Your task to perform on an android device: open the mobile data screen to see how much data has been used Image 0: 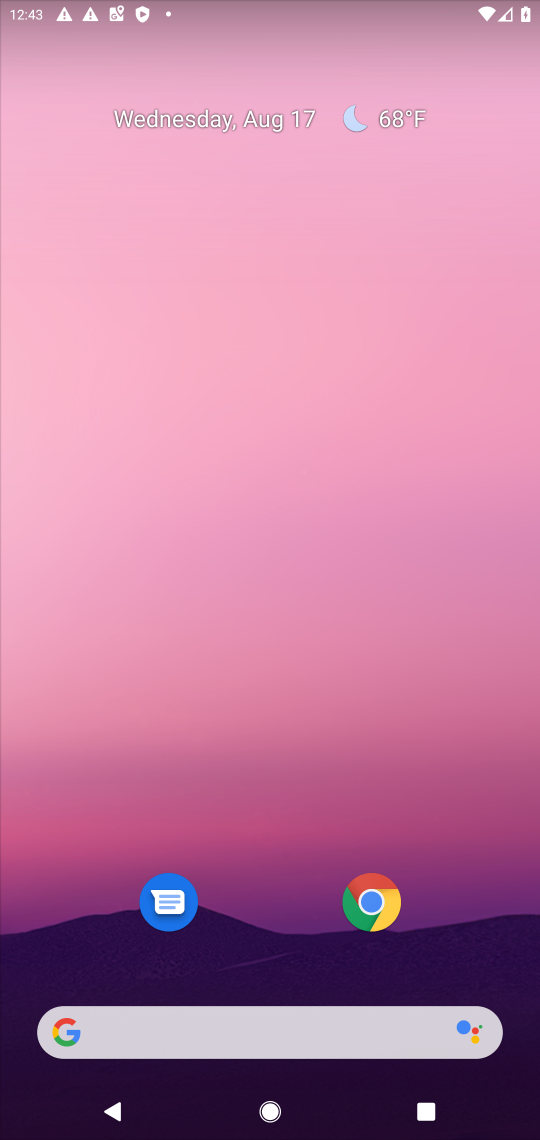
Step 0: drag from (262, 979) to (278, 72)
Your task to perform on an android device: open the mobile data screen to see how much data has been used Image 1: 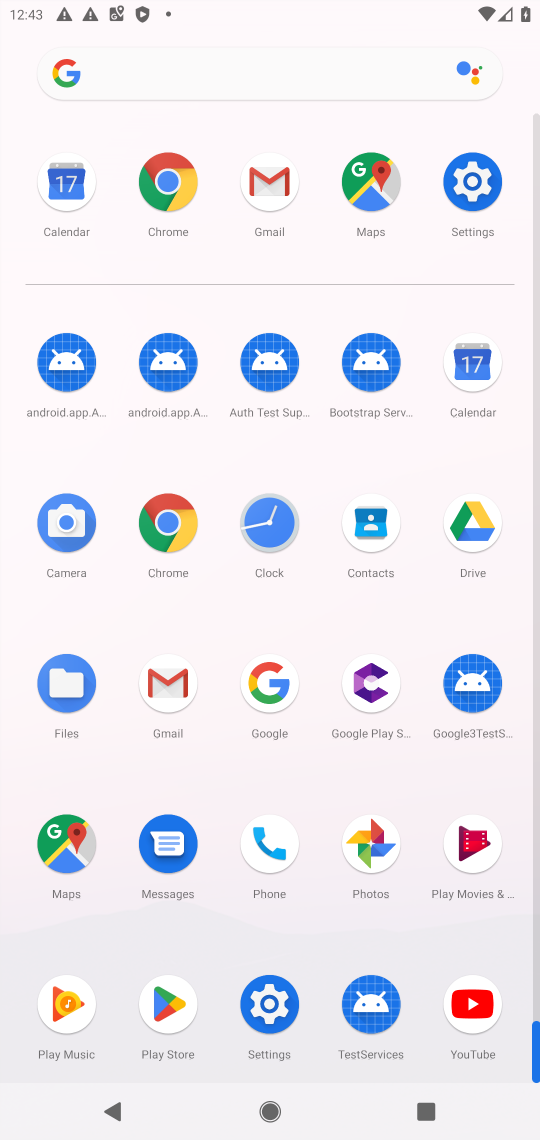
Step 1: click (263, 1000)
Your task to perform on an android device: open the mobile data screen to see how much data has been used Image 2: 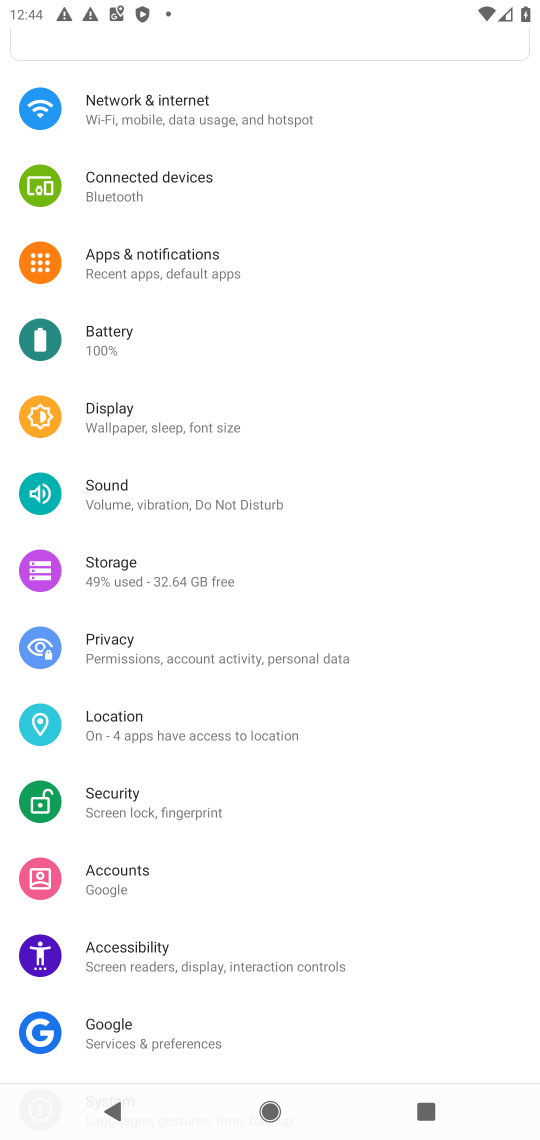
Step 2: click (202, 109)
Your task to perform on an android device: open the mobile data screen to see how much data has been used Image 3: 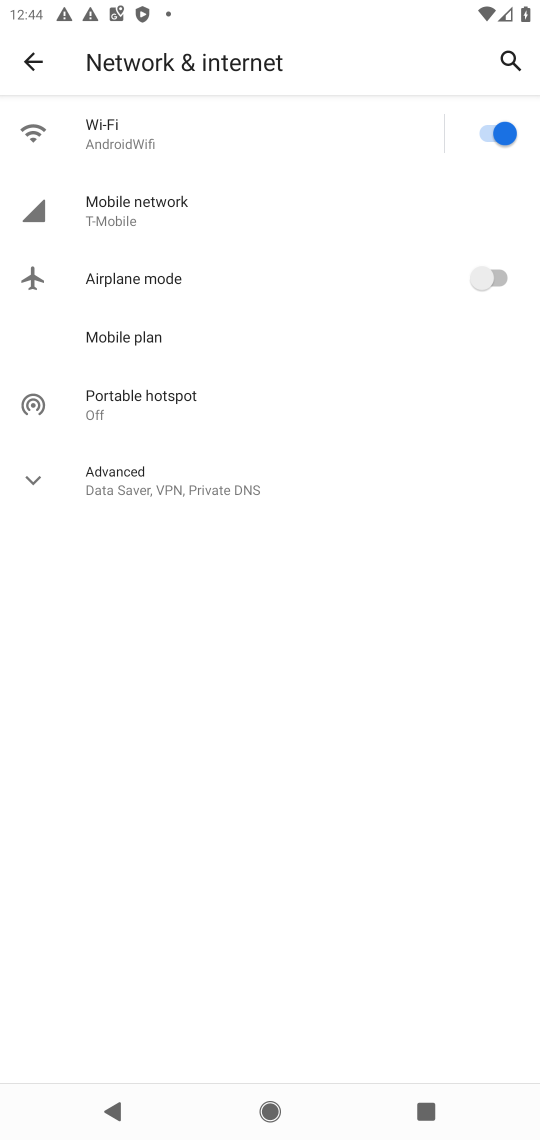
Step 3: click (155, 203)
Your task to perform on an android device: open the mobile data screen to see how much data has been used Image 4: 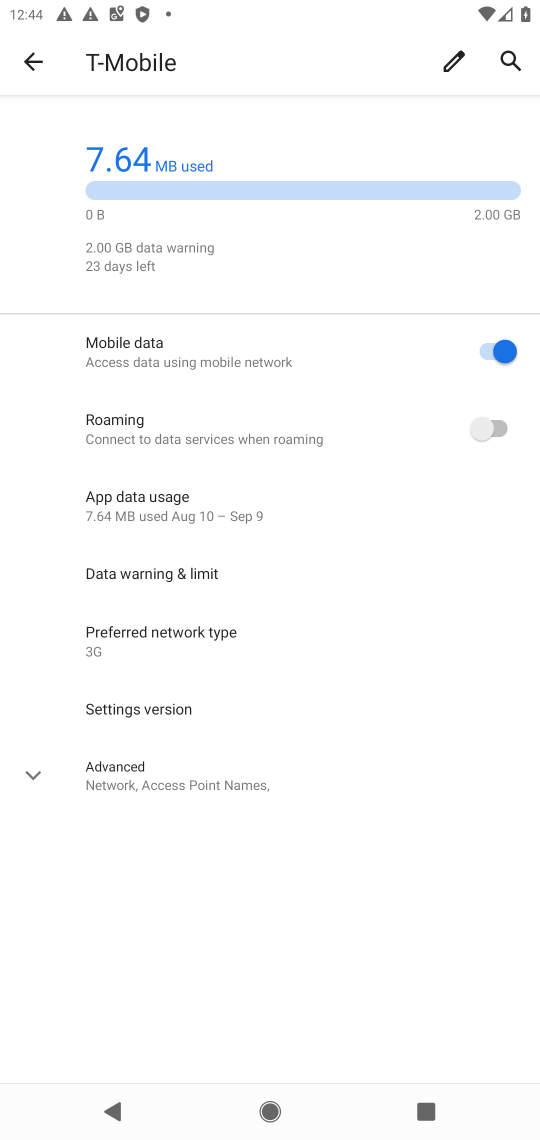
Step 4: click (208, 496)
Your task to perform on an android device: open the mobile data screen to see how much data has been used Image 5: 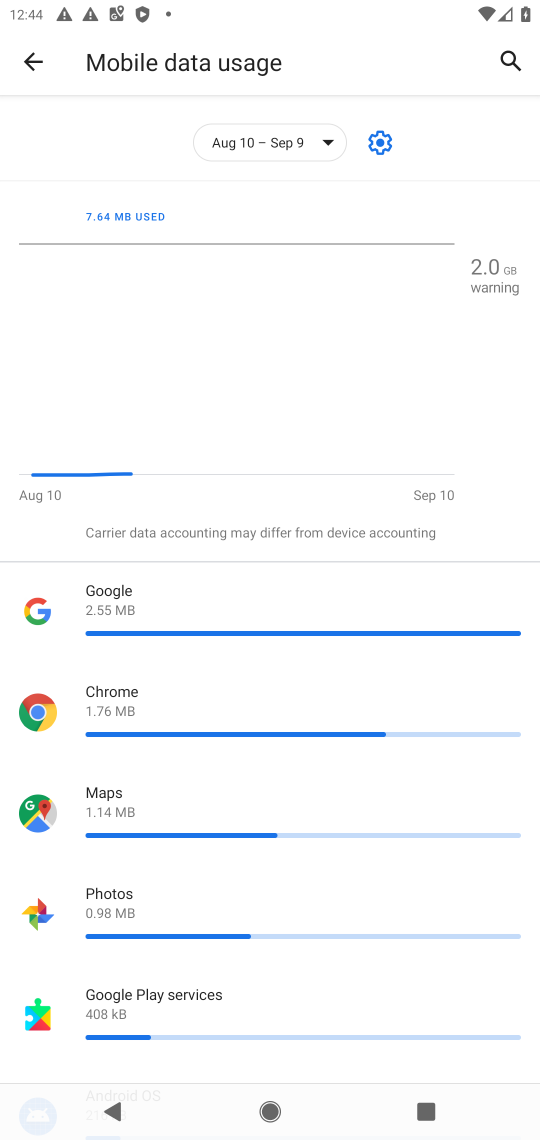
Step 5: task complete